Your task to perform on an android device: Open Google Chrome Image 0: 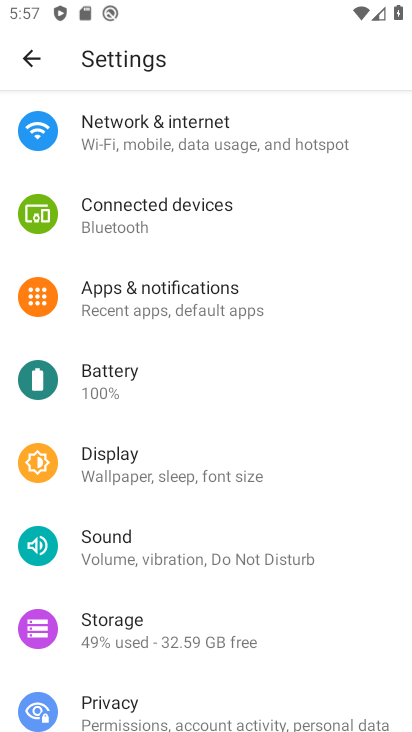
Step 0: press home button
Your task to perform on an android device: Open Google Chrome Image 1: 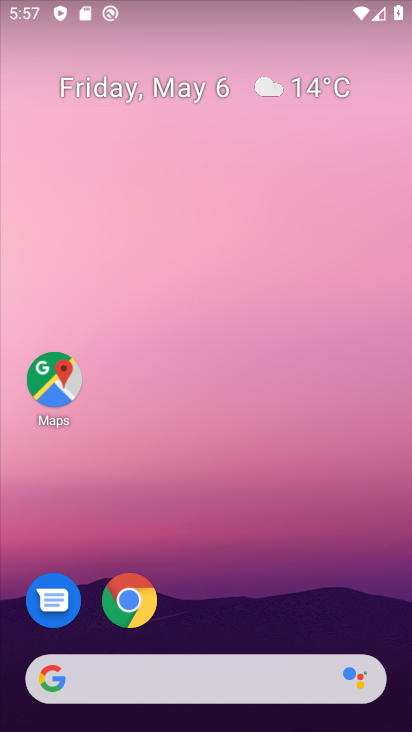
Step 1: click (129, 597)
Your task to perform on an android device: Open Google Chrome Image 2: 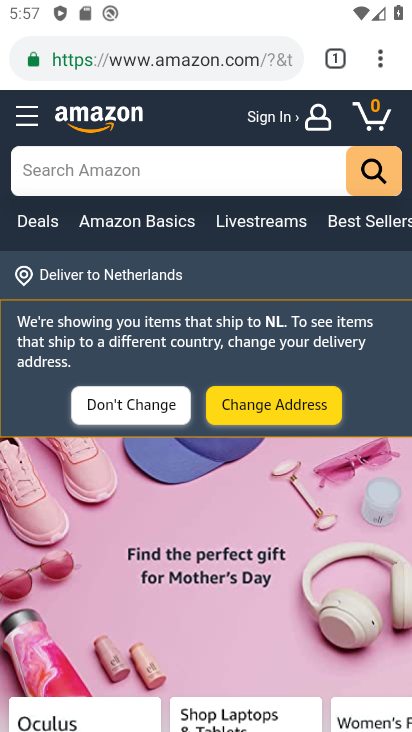
Step 2: task complete